Your task to perform on an android device: find snoozed emails in the gmail app Image 0: 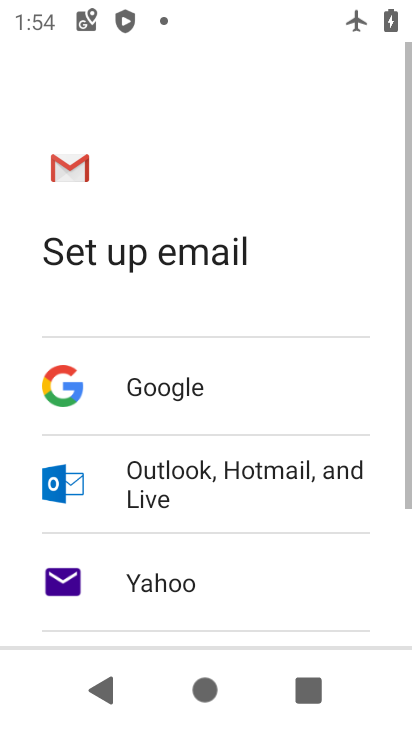
Step 0: press home button
Your task to perform on an android device: find snoozed emails in the gmail app Image 1: 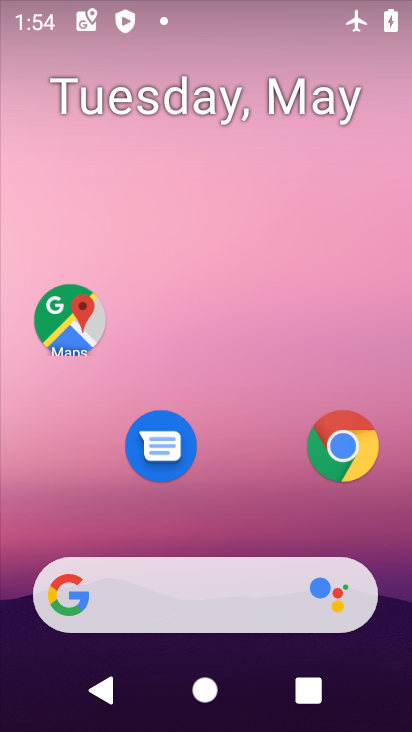
Step 1: drag from (175, 540) to (135, 7)
Your task to perform on an android device: find snoozed emails in the gmail app Image 2: 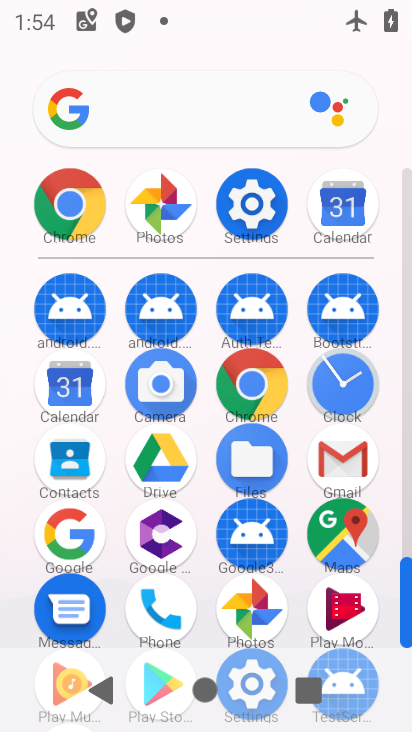
Step 2: click (335, 464)
Your task to perform on an android device: find snoozed emails in the gmail app Image 3: 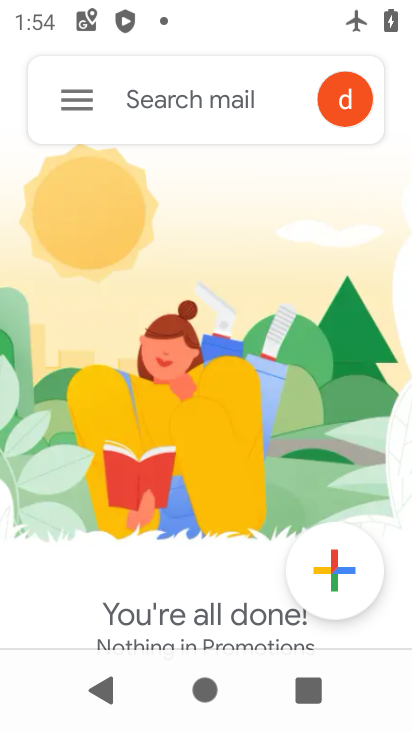
Step 3: click (76, 111)
Your task to perform on an android device: find snoozed emails in the gmail app Image 4: 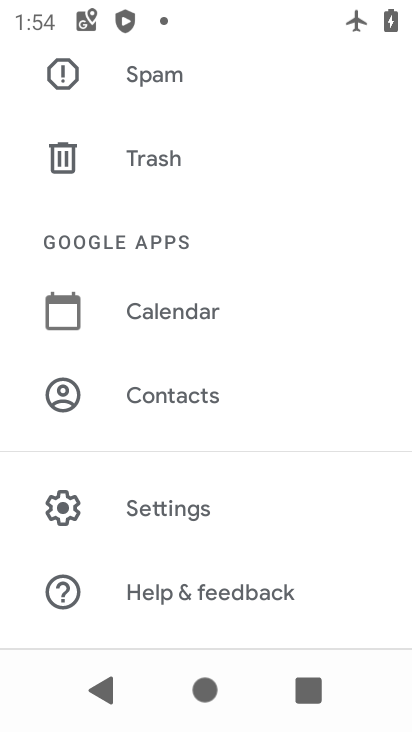
Step 4: drag from (159, 147) to (155, 498)
Your task to perform on an android device: find snoozed emails in the gmail app Image 5: 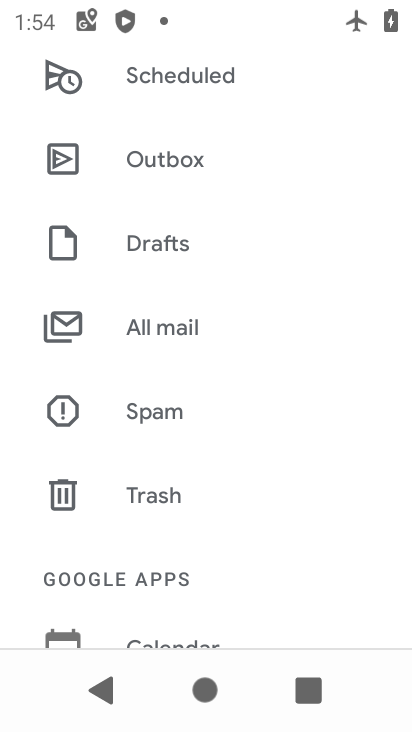
Step 5: drag from (173, 93) to (182, 486)
Your task to perform on an android device: find snoozed emails in the gmail app Image 6: 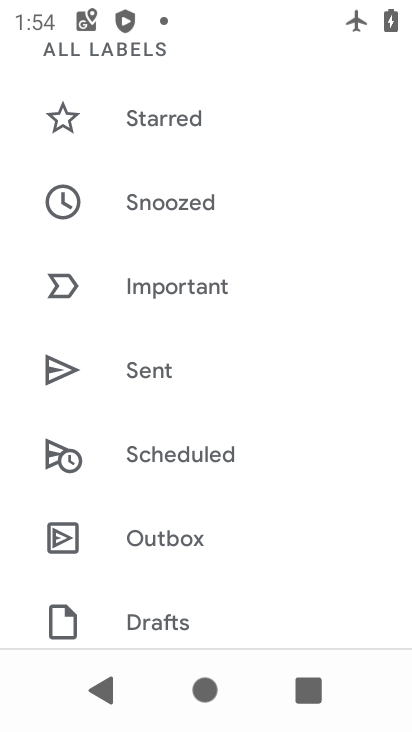
Step 6: click (157, 194)
Your task to perform on an android device: find snoozed emails in the gmail app Image 7: 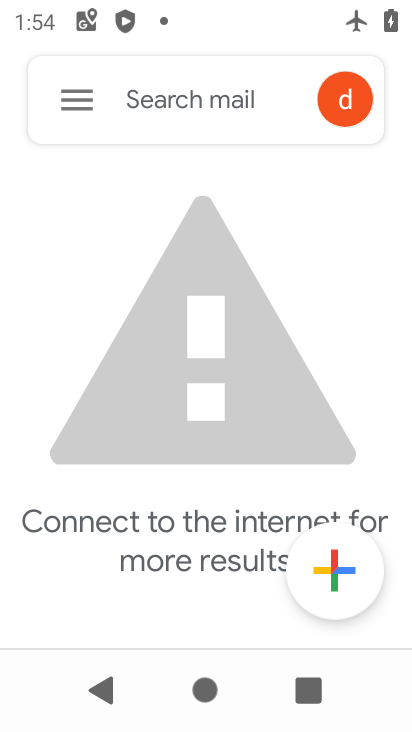
Step 7: task complete